Your task to perform on an android device: turn on priority inbox in the gmail app Image 0: 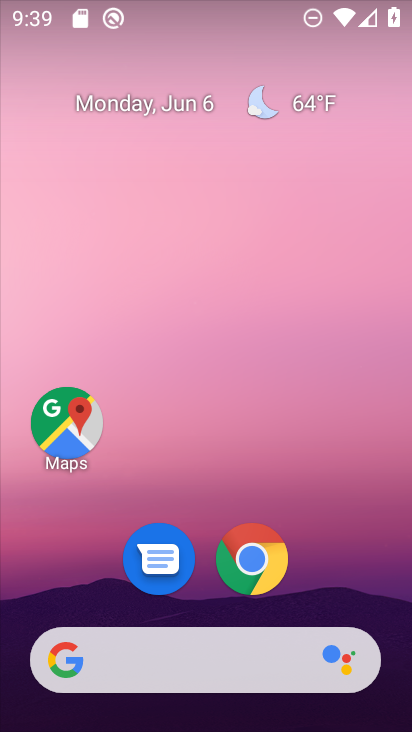
Step 0: drag from (206, 726) to (215, 177)
Your task to perform on an android device: turn on priority inbox in the gmail app Image 1: 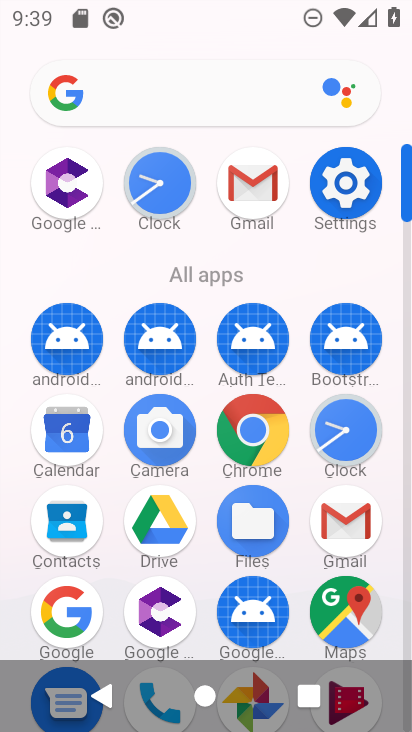
Step 1: click (347, 522)
Your task to perform on an android device: turn on priority inbox in the gmail app Image 2: 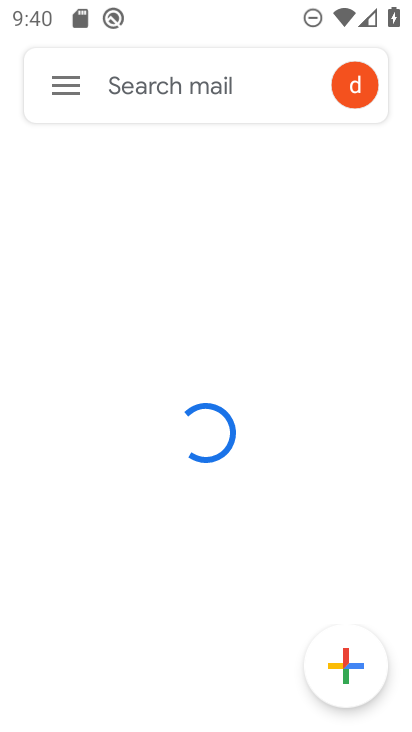
Step 2: click (67, 85)
Your task to perform on an android device: turn on priority inbox in the gmail app Image 3: 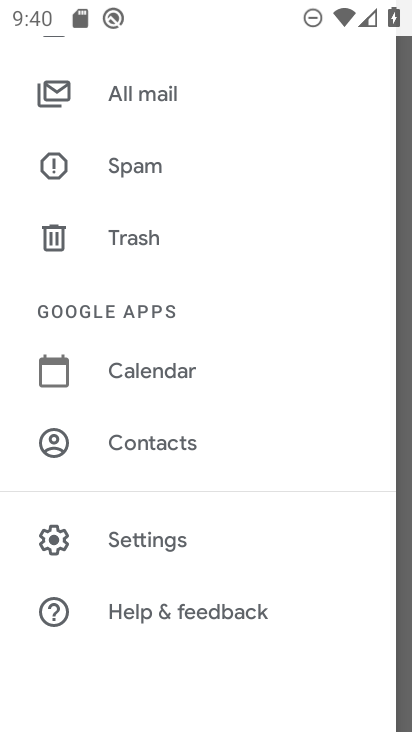
Step 3: click (155, 543)
Your task to perform on an android device: turn on priority inbox in the gmail app Image 4: 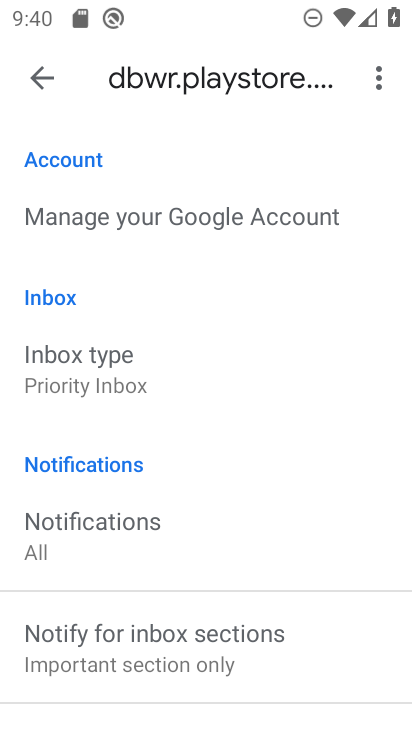
Step 4: task complete